Your task to perform on an android device: change the upload size in google photos Image 0: 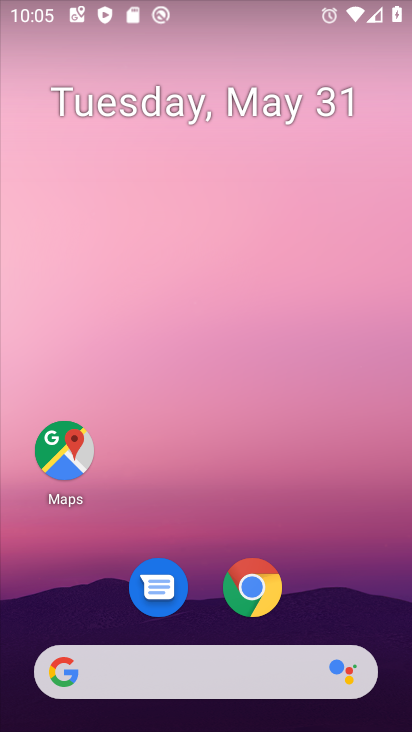
Step 0: drag from (353, 615) to (353, 260)
Your task to perform on an android device: change the upload size in google photos Image 1: 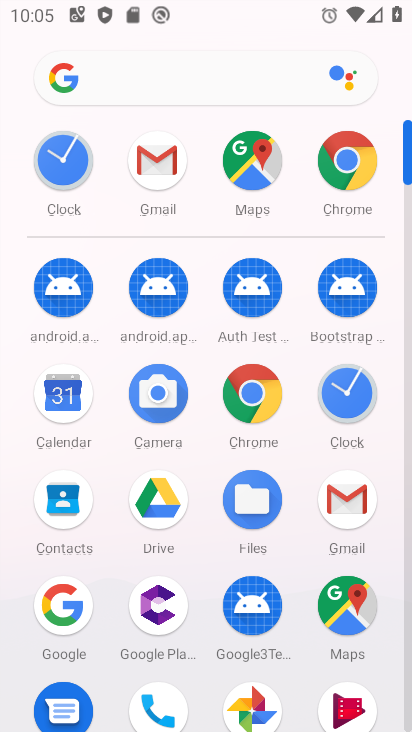
Step 1: drag from (295, 633) to (295, 346)
Your task to perform on an android device: change the upload size in google photos Image 2: 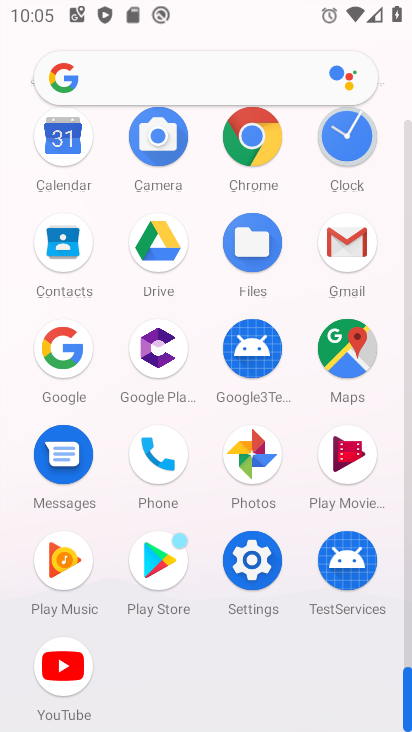
Step 2: click (249, 454)
Your task to perform on an android device: change the upload size in google photos Image 3: 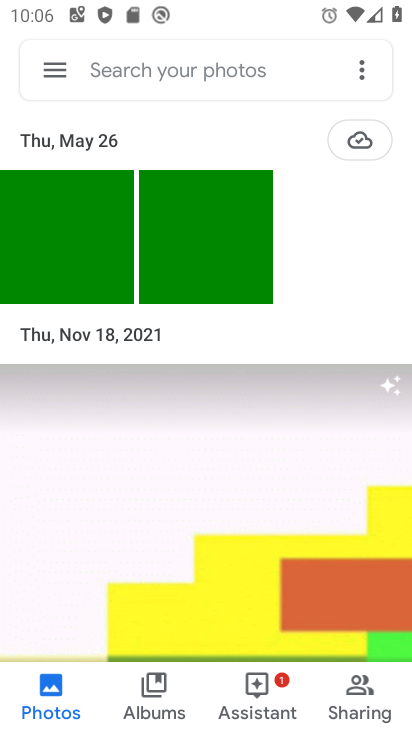
Step 3: click (46, 71)
Your task to perform on an android device: change the upload size in google photos Image 4: 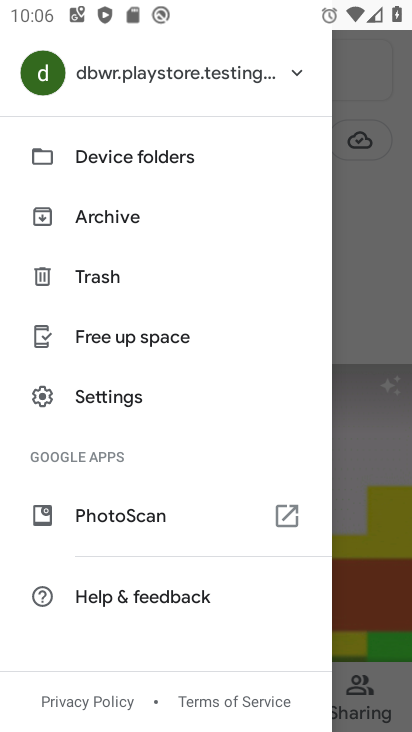
Step 4: drag from (206, 492) to (208, 328)
Your task to perform on an android device: change the upload size in google photos Image 5: 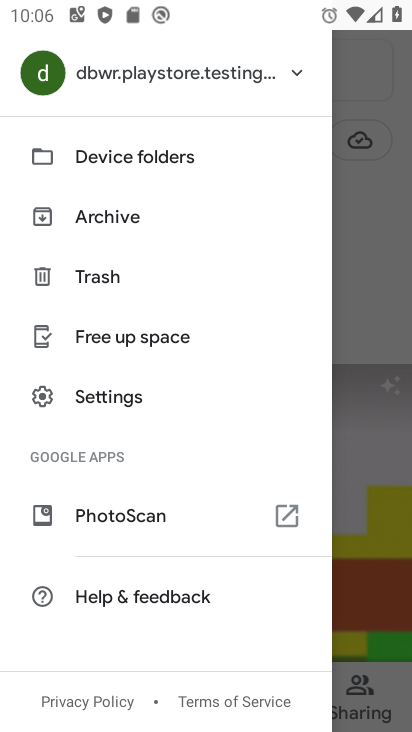
Step 5: drag from (225, 208) to (219, 419)
Your task to perform on an android device: change the upload size in google photos Image 6: 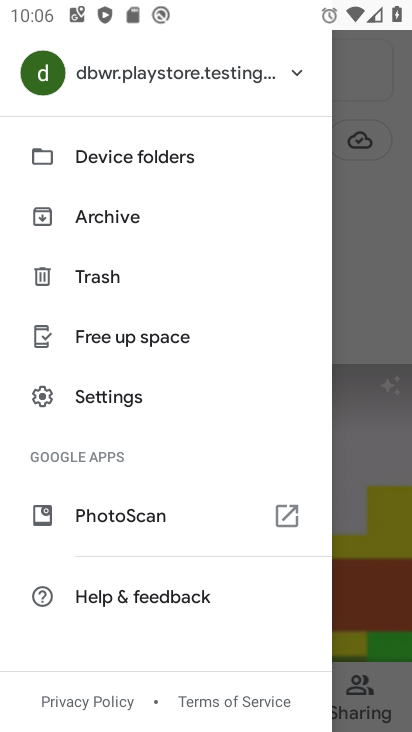
Step 6: click (126, 410)
Your task to perform on an android device: change the upload size in google photos Image 7: 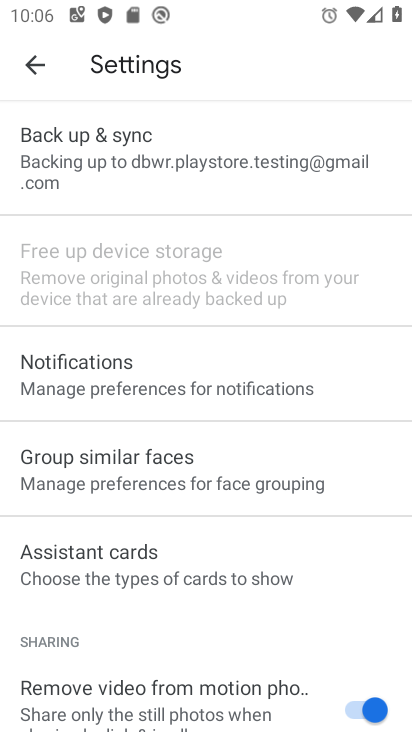
Step 7: click (200, 172)
Your task to perform on an android device: change the upload size in google photos Image 8: 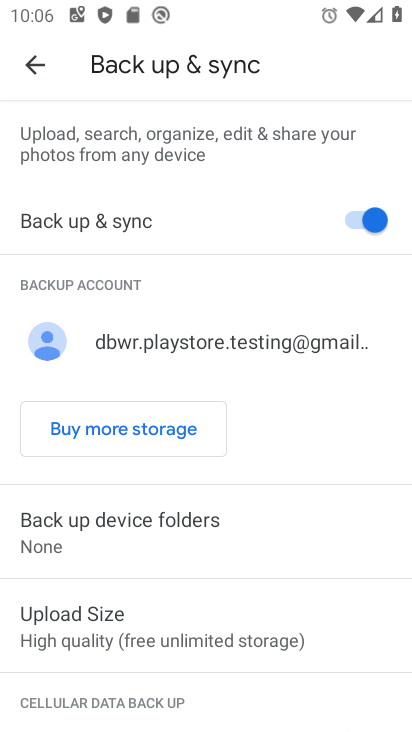
Step 8: drag from (290, 456) to (271, 297)
Your task to perform on an android device: change the upload size in google photos Image 9: 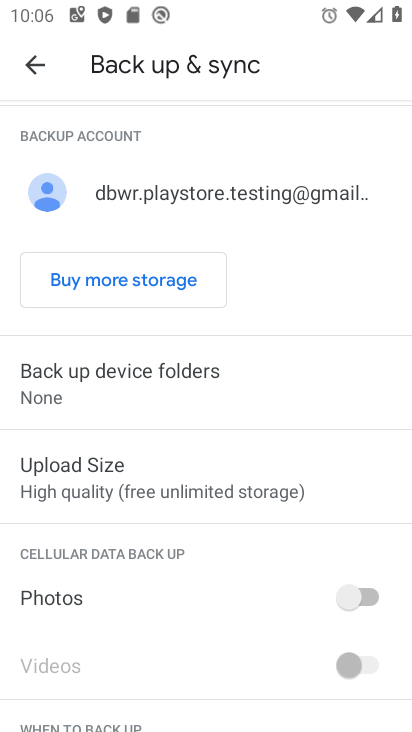
Step 9: click (198, 490)
Your task to perform on an android device: change the upload size in google photos Image 10: 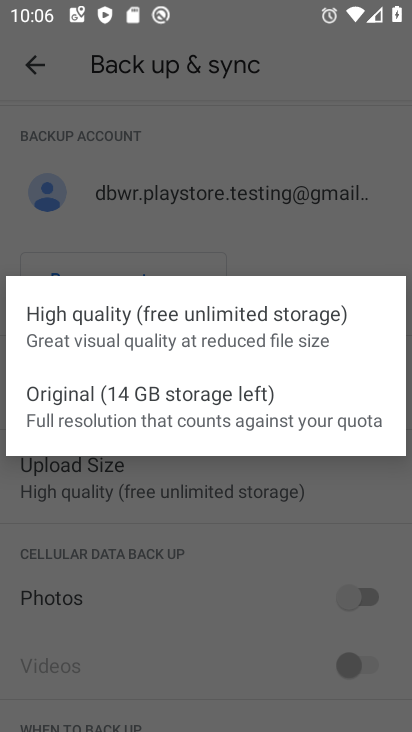
Step 10: click (150, 388)
Your task to perform on an android device: change the upload size in google photos Image 11: 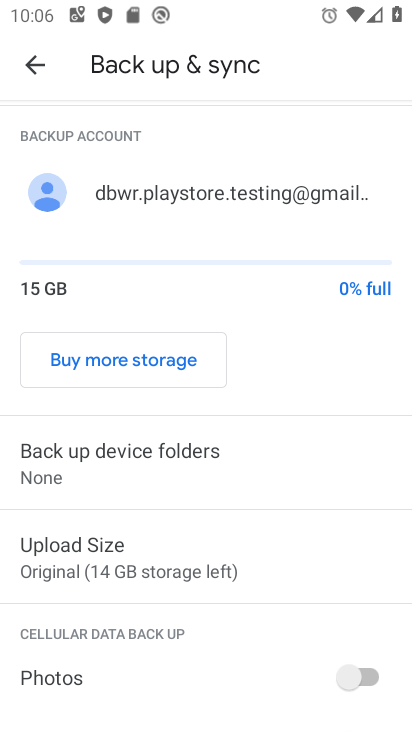
Step 11: task complete